Your task to perform on an android device: Open Youtube and go to the subscriptions tab Image 0: 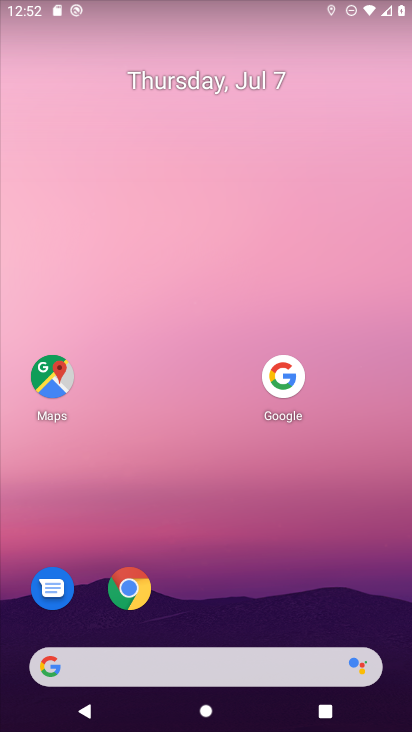
Step 0: drag from (179, 677) to (338, 97)
Your task to perform on an android device: Open Youtube and go to the subscriptions tab Image 1: 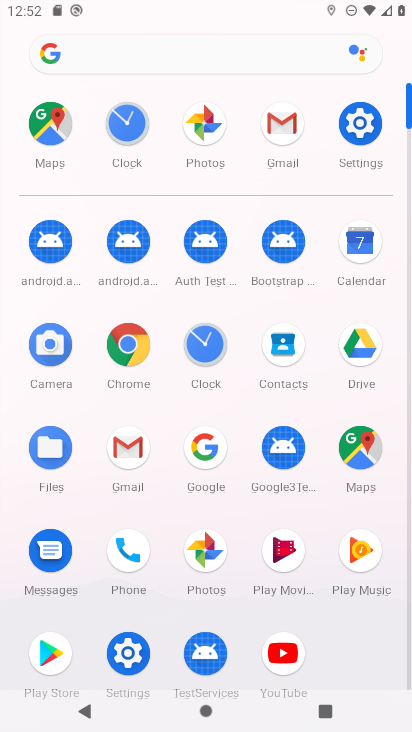
Step 1: click (280, 654)
Your task to perform on an android device: Open Youtube and go to the subscriptions tab Image 2: 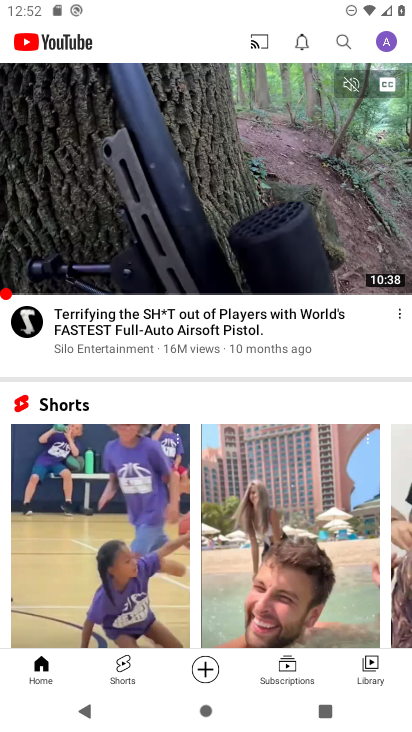
Step 2: click (277, 668)
Your task to perform on an android device: Open Youtube and go to the subscriptions tab Image 3: 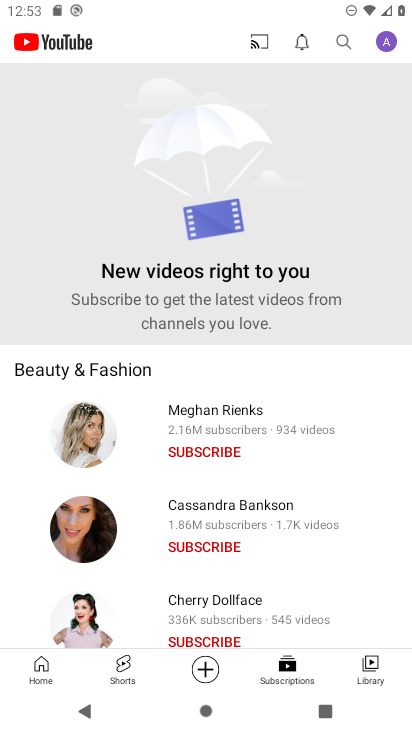
Step 3: task complete